Your task to perform on an android device: find which apps use the phone's location Image 0: 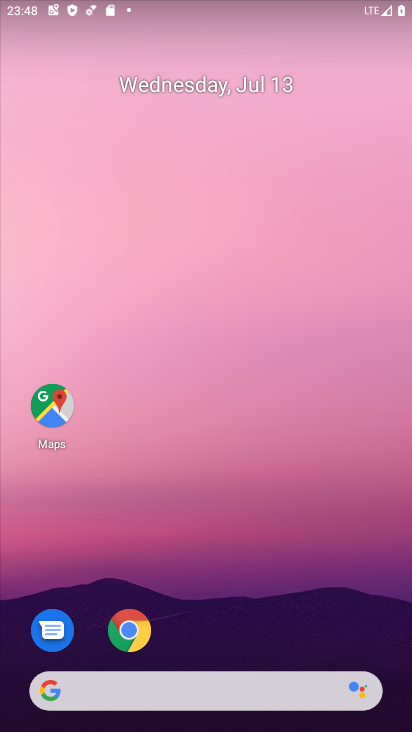
Step 0: drag from (300, 597) to (281, 102)
Your task to perform on an android device: find which apps use the phone's location Image 1: 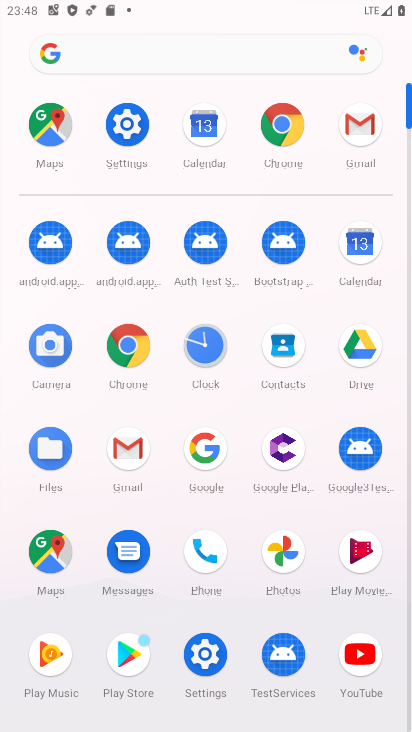
Step 1: click (217, 656)
Your task to perform on an android device: find which apps use the phone's location Image 2: 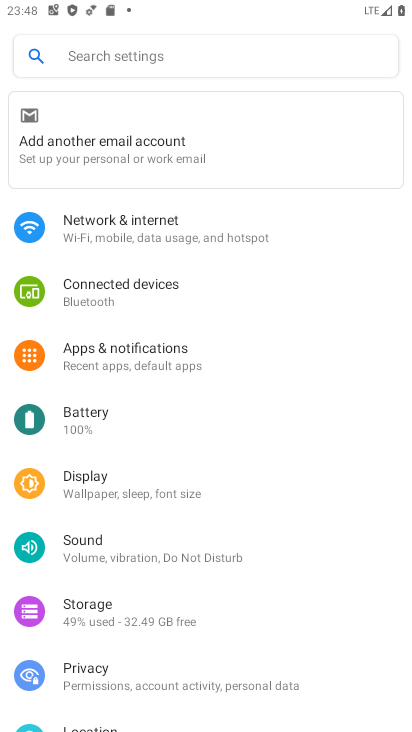
Step 2: drag from (369, 521) to (368, 425)
Your task to perform on an android device: find which apps use the phone's location Image 3: 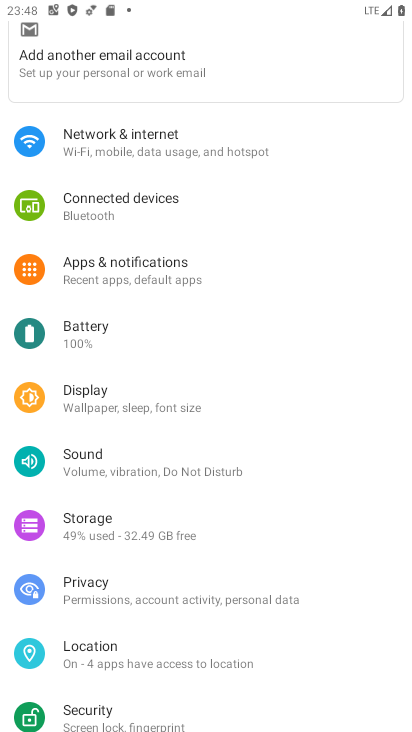
Step 3: drag from (347, 513) to (347, 420)
Your task to perform on an android device: find which apps use the phone's location Image 4: 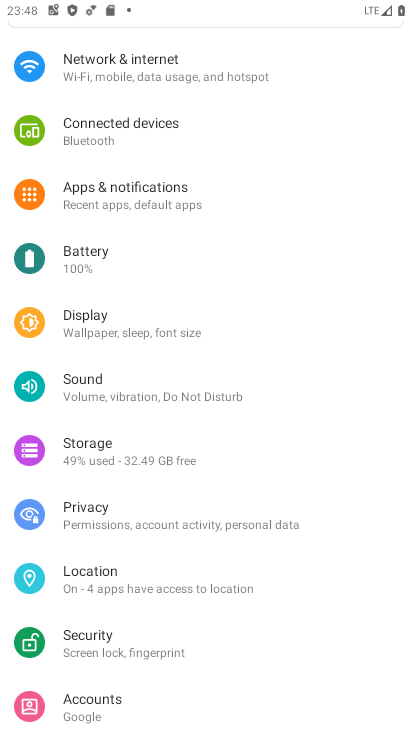
Step 4: drag from (341, 546) to (342, 458)
Your task to perform on an android device: find which apps use the phone's location Image 5: 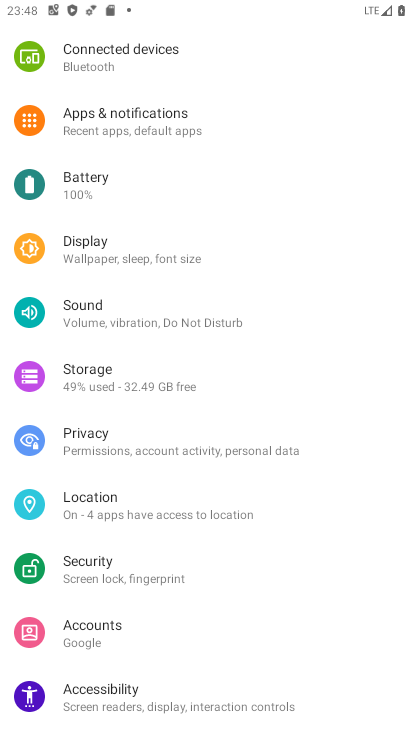
Step 5: drag from (336, 503) to (336, 439)
Your task to perform on an android device: find which apps use the phone's location Image 6: 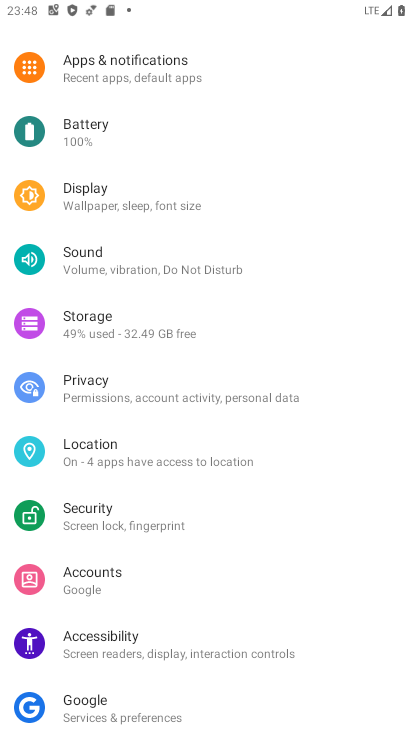
Step 6: drag from (343, 502) to (344, 455)
Your task to perform on an android device: find which apps use the phone's location Image 7: 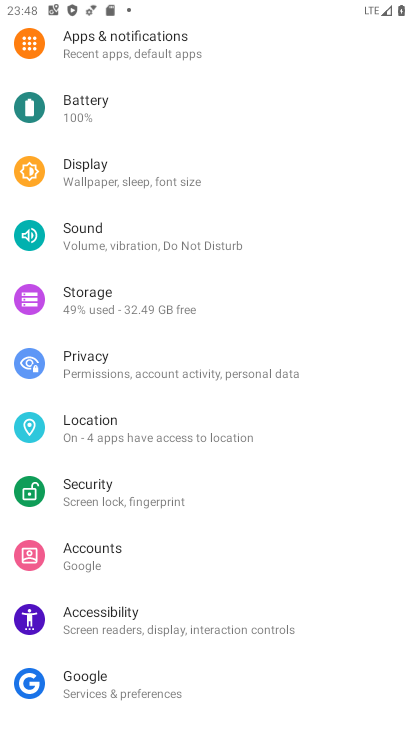
Step 7: drag from (344, 519) to (345, 467)
Your task to perform on an android device: find which apps use the phone's location Image 8: 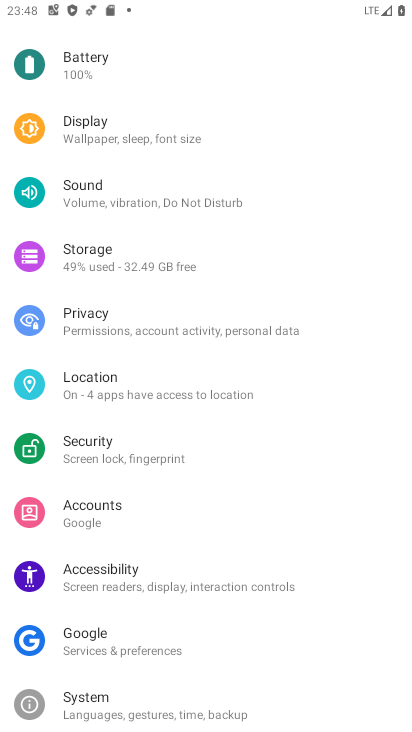
Step 8: drag from (347, 521) to (349, 438)
Your task to perform on an android device: find which apps use the phone's location Image 9: 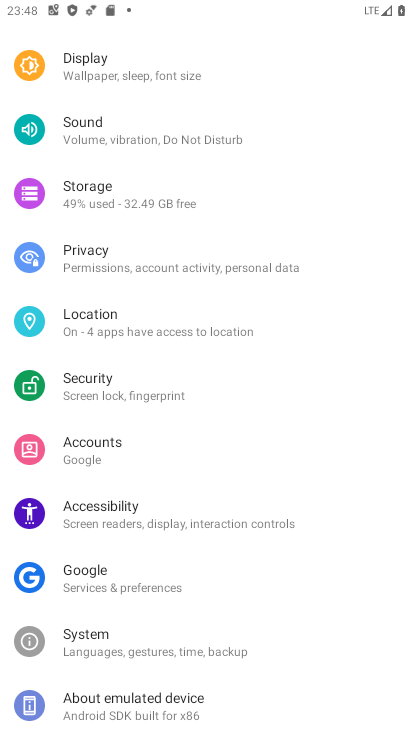
Step 9: drag from (353, 532) to (358, 458)
Your task to perform on an android device: find which apps use the phone's location Image 10: 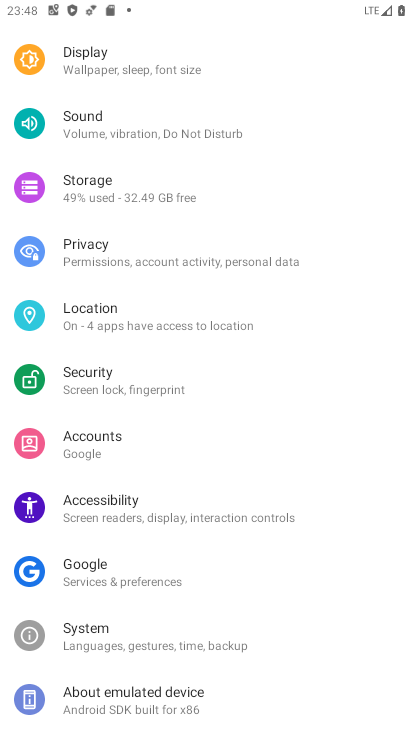
Step 10: drag from (348, 355) to (340, 415)
Your task to perform on an android device: find which apps use the phone's location Image 11: 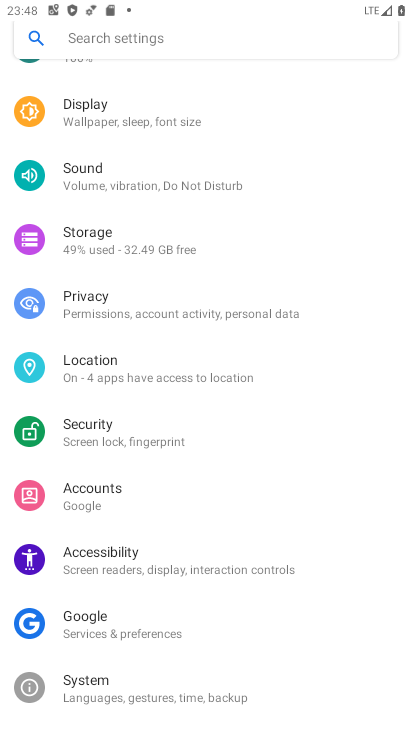
Step 11: drag from (343, 355) to (333, 413)
Your task to perform on an android device: find which apps use the phone's location Image 12: 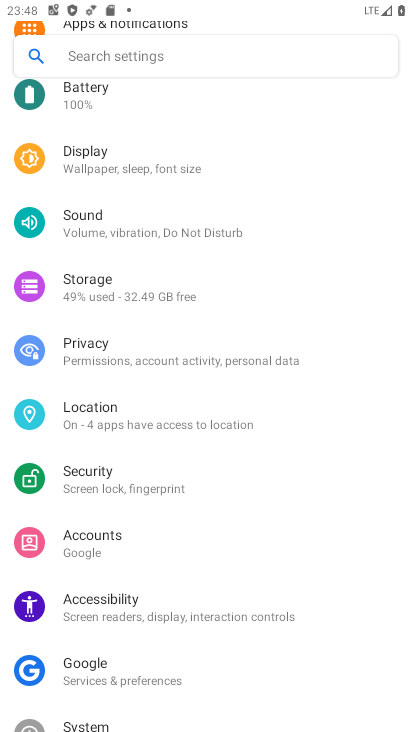
Step 12: click (239, 426)
Your task to perform on an android device: find which apps use the phone's location Image 13: 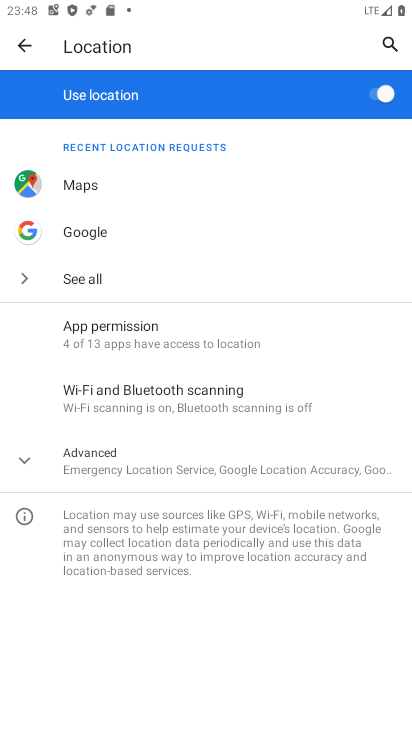
Step 13: click (141, 335)
Your task to perform on an android device: find which apps use the phone's location Image 14: 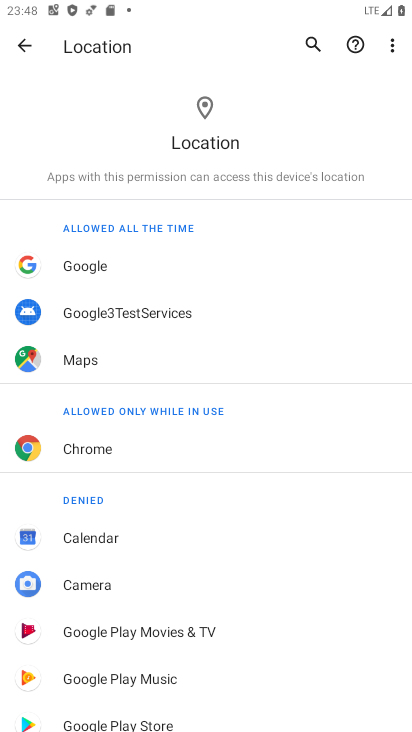
Step 14: drag from (296, 492) to (299, 437)
Your task to perform on an android device: find which apps use the phone's location Image 15: 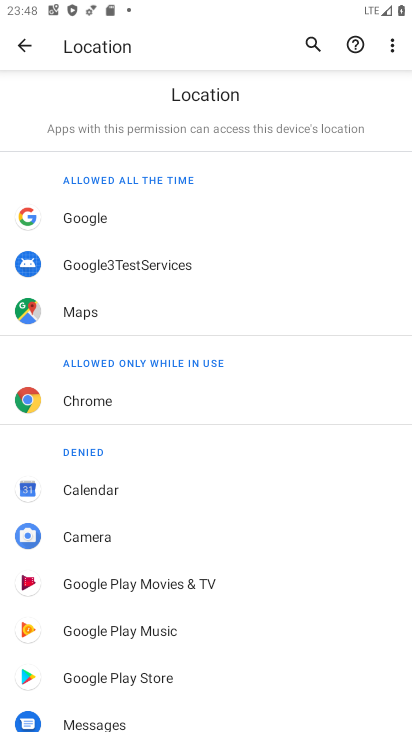
Step 15: drag from (305, 481) to (314, 435)
Your task to perform on an android device: find which apps use the phone's location Image 16: 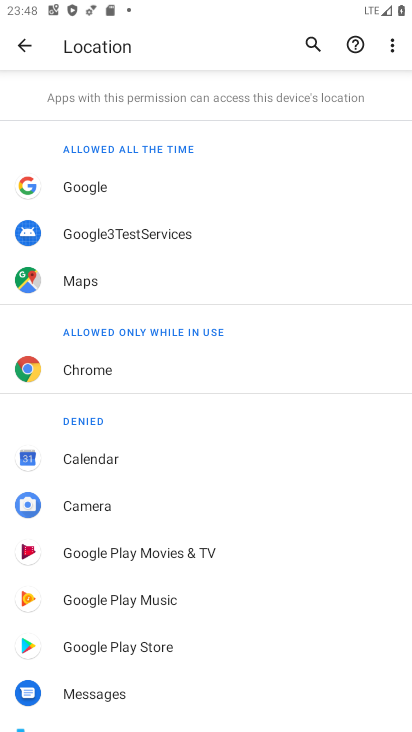
Step 16: drag from (306, 494) to (308, 431)
Your task to perform on an android device: find which apps use the phone's location Image 17: 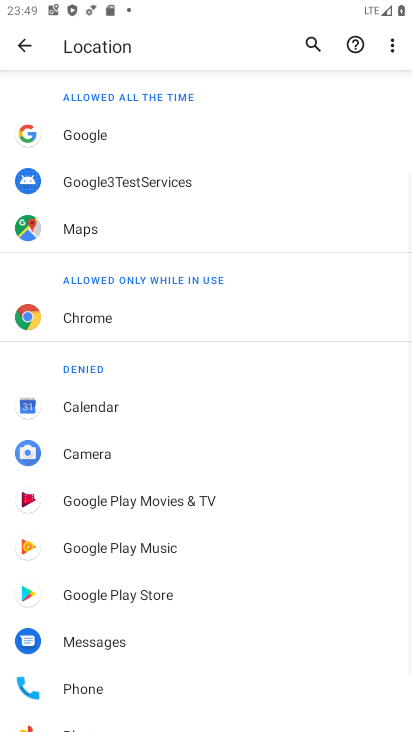
Step 17: drag from (308, 498) to (311, 432)
Your task to perform on an android device: find which apps use the phone's location Image 18: 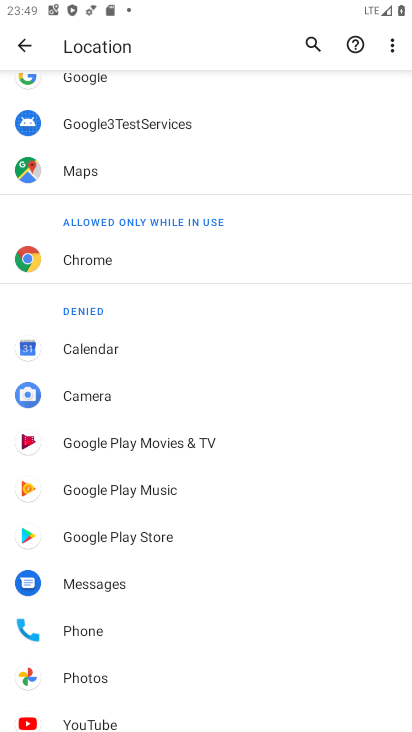
Step 18: drag from (308, 495) to (309, 444)
Your task to perform on an android device: find which apps use the phone's location Image 19: 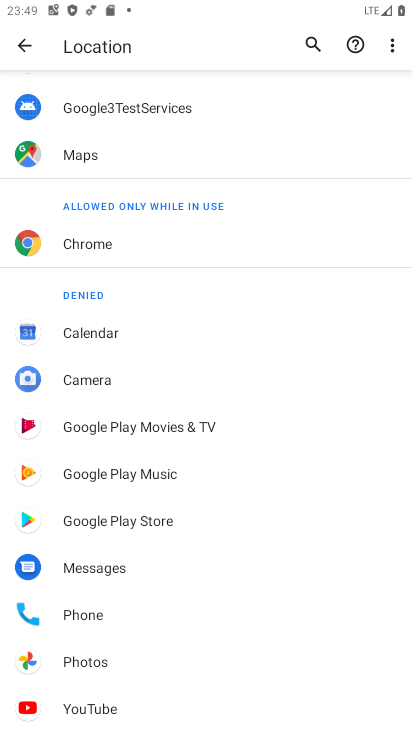
Step 19: click (130, 655)
Your task to perform on an android device: find which apps use the phone's location Image 20: 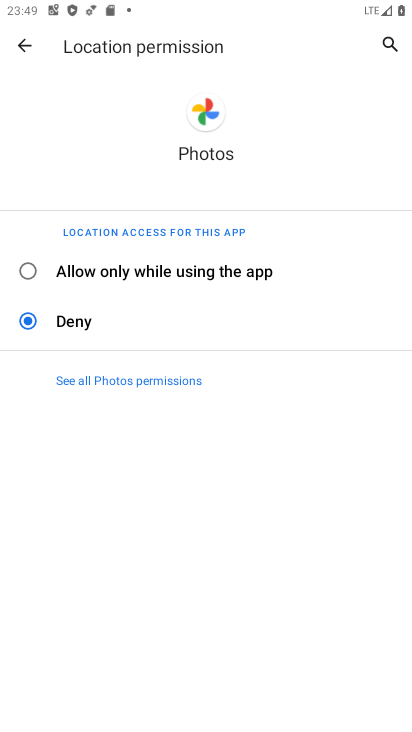
Step 20: click (167, 279)
Your task to perform on an android device: find which apps use the phone's location Image 21: 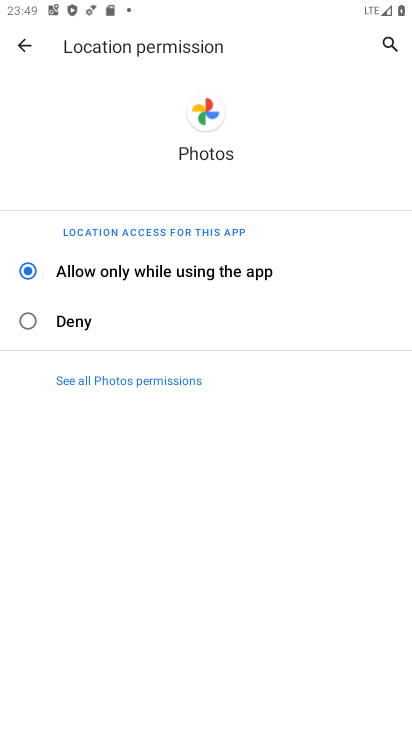
Step 21: task complete